Your task to perform on an android device: Find coffee shops on Maps Image 0: 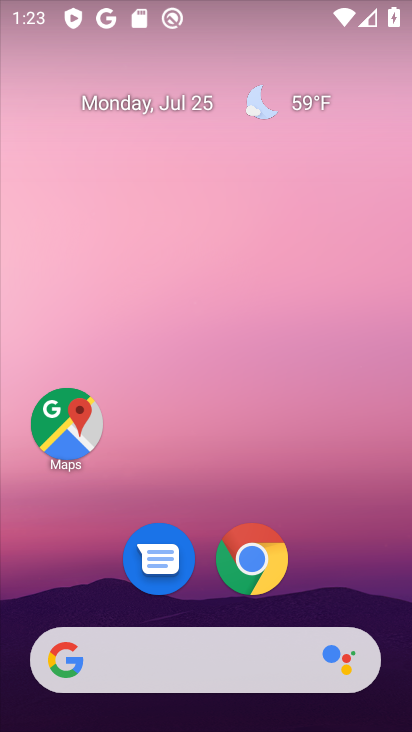
Step 0: click (78, 430)
Your task to perform on an android device: Find coffee shops on Maps Image 1: 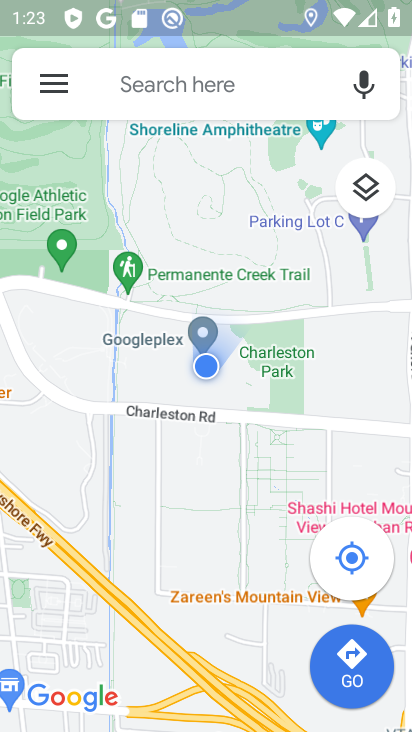
Step 1: click (194, 78)
Your task to perform on an android device: Find coffee shops on Maps Image 2: 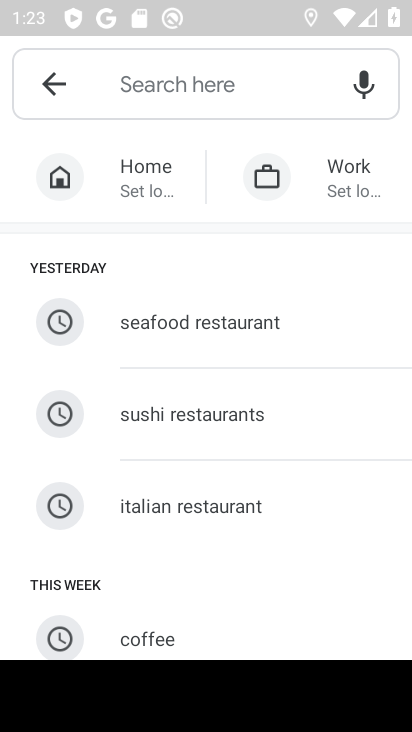
Step 2: type "coffee shops"
Your task to perform on an android device: Find coffee shops on Maps Image 3: 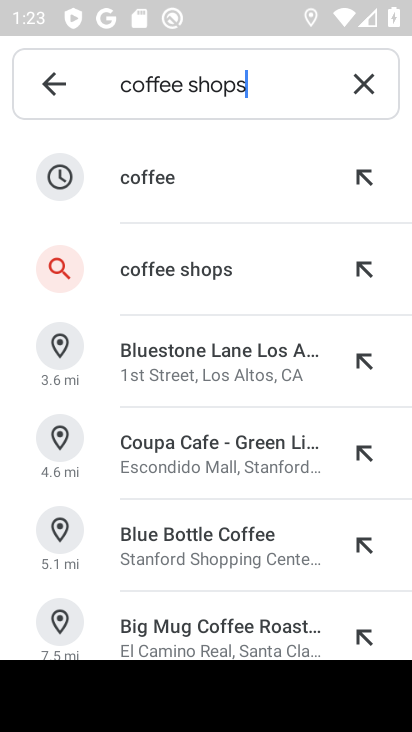
Step 3: click (182, 243)
Your task to perform on an android device: Find coffee shops on Maps Image 4: 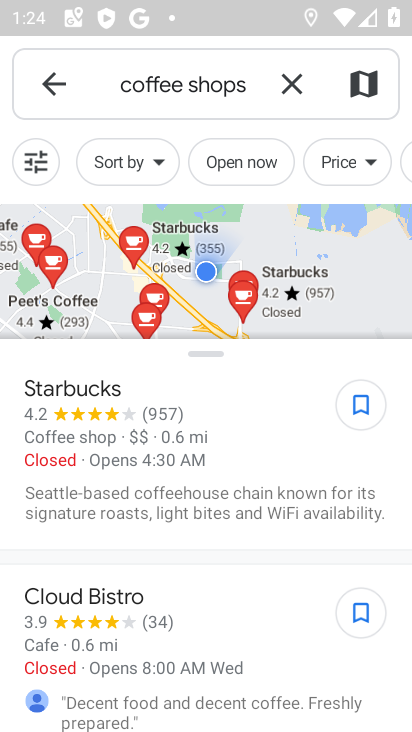
Step 4: task complete